Your task to perform on an android device: Open notification settings Image 0: 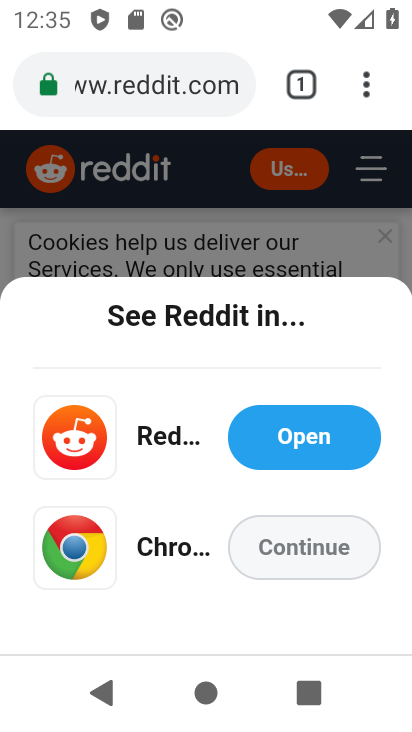
Step 0: press home button
Your task to perform on an android device: Open notification settings Image 1: 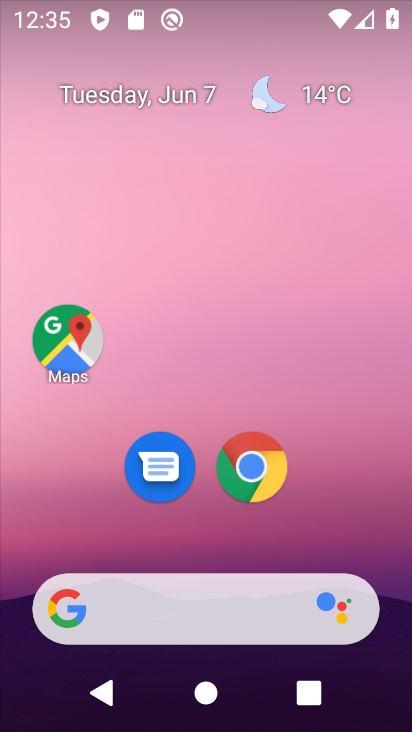
Step 1: drag from (180, 627) to (262, 62)
Your task to perform on an android device: Open notification settings Image 2: 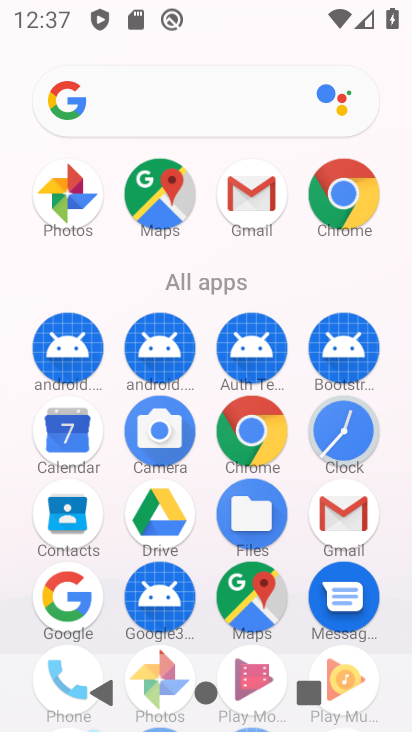
Step 2: drag from (212, 597) to (294, 99)
Your task to perform on an android device: Open notification settings Image 3: 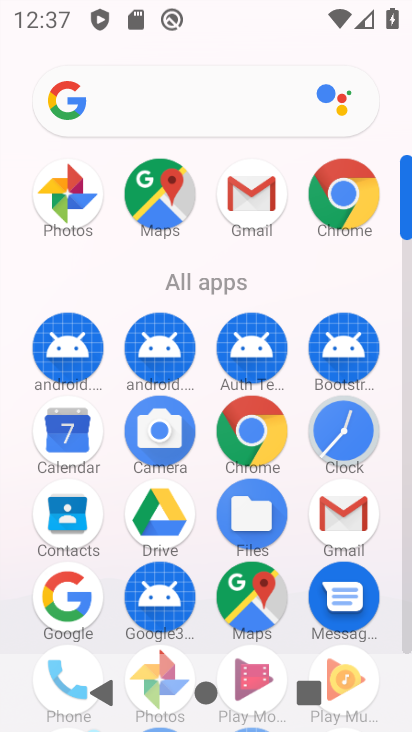
Step 3: drag from (214, 551) to (270, 144)
Your task to perform on an android device: Open notification settings Image 4: 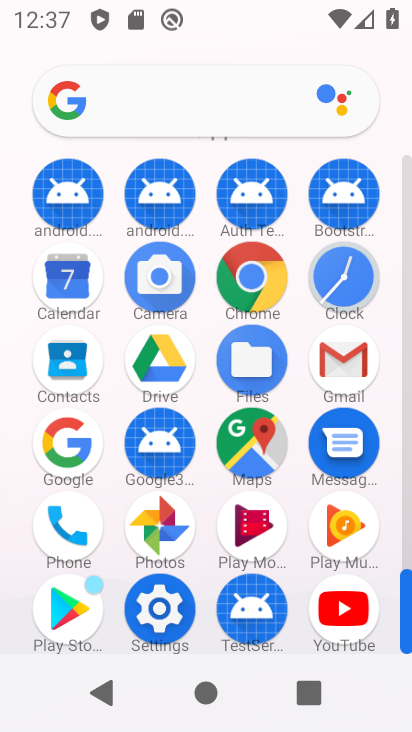
Step 4: click (167, 626)
Your task to perform on an android device: Open notification settings Image 5: 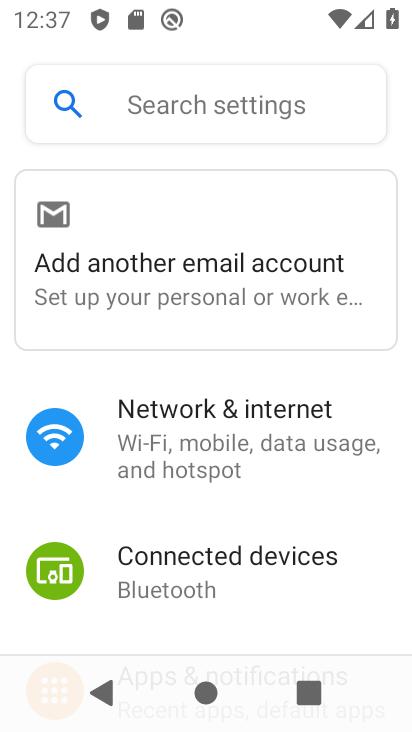
Step 5: drag from (245, 578) to (287, 113)
Your task to perform on an android device: Open notification settings Image 6: 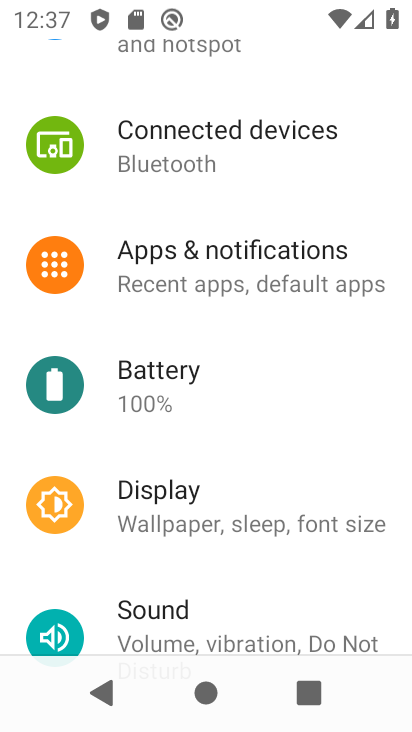
Step 6: click (218, 268)
Your task to perform on an android device: Open notification settings Image 7: 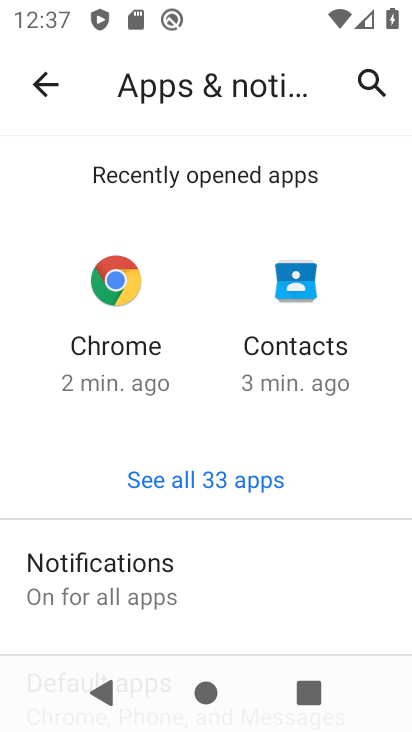
Step 7: task complete